Your task to perform on an android device: allow cookies in the chrome app Image 0: 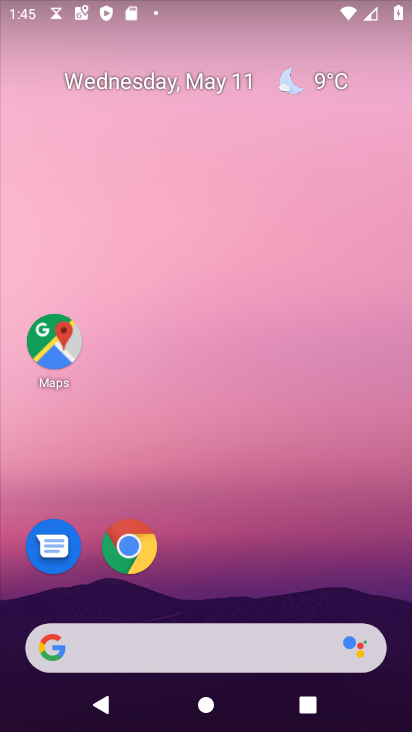
Step 0: drag from (219, 602) to (269, 27)
Your task to perform on an android device: allow cookies in the chrome app Image 1: 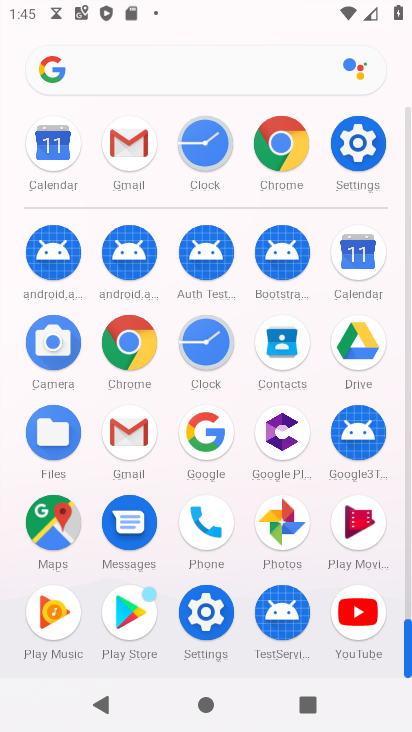
Step 1: click (118, 346)
Your task to perform on an android device: allow cookies in the chrome app Image 2: 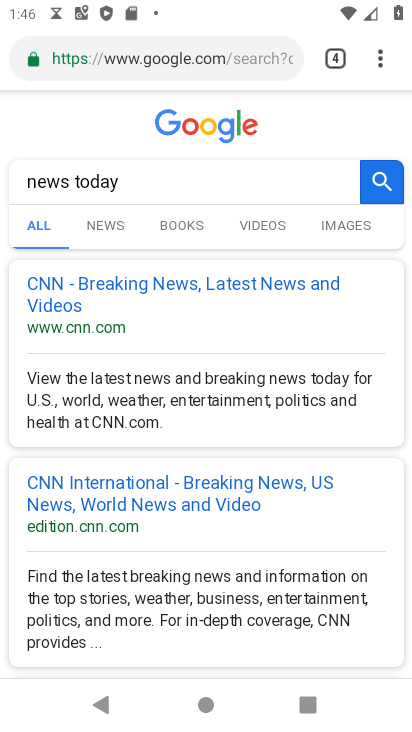
Step 2: drag from (372, 57) to (217, 580)
Your task to perform on an android device: allow cookies in the chrome app Image 3: 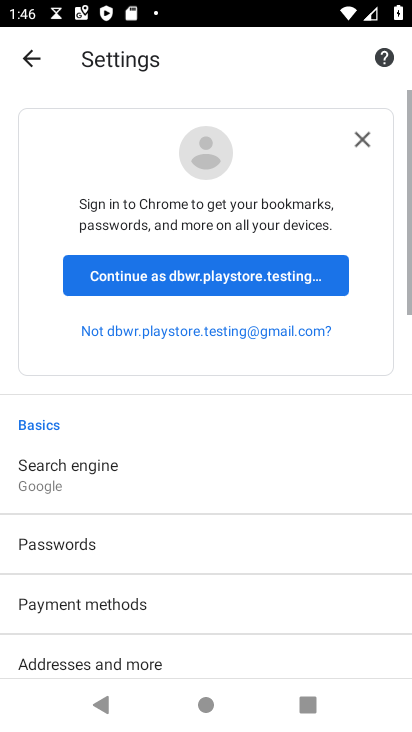
Step 3: drag from (187, 601) to (203, 110)
Your task to perform on an android device: allow cookies in the chrome app Image 4: 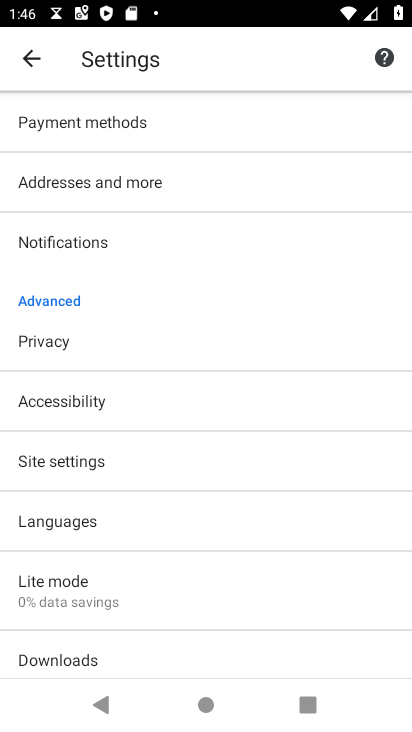
Step 4: click (135, 459)
Your task to perform on an android device: allow cookies in the chrome app Image 5: 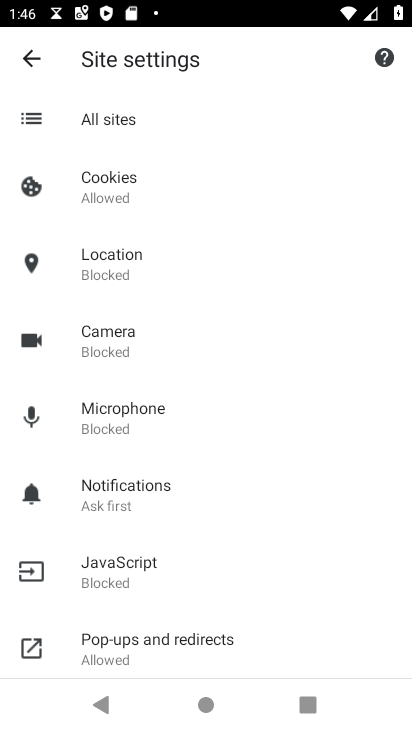
Step 5: click (146, 204)
Your task to perform on an android device: allow cookies in the chrome app Image 6: 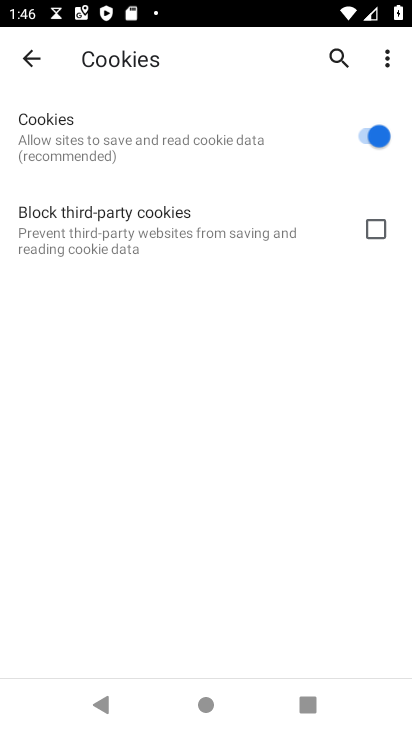
Step 6: task complete